Your task to perform on an android device: choose inbox layout in the gmail app Image 0: 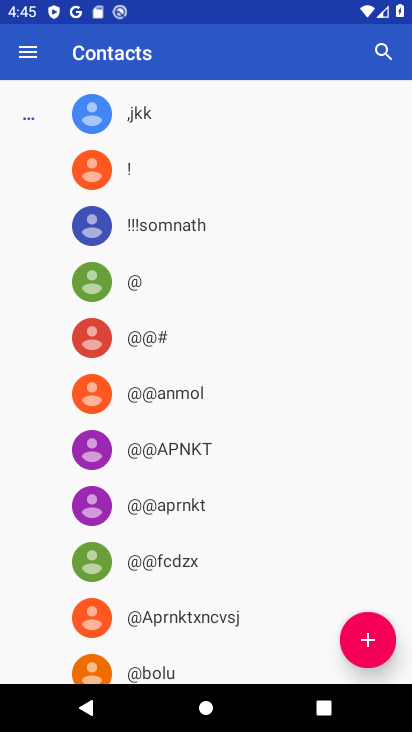
Step 0: press home button
Your task to perform on an android device: choose inbox layout in the gmail app Image 1: 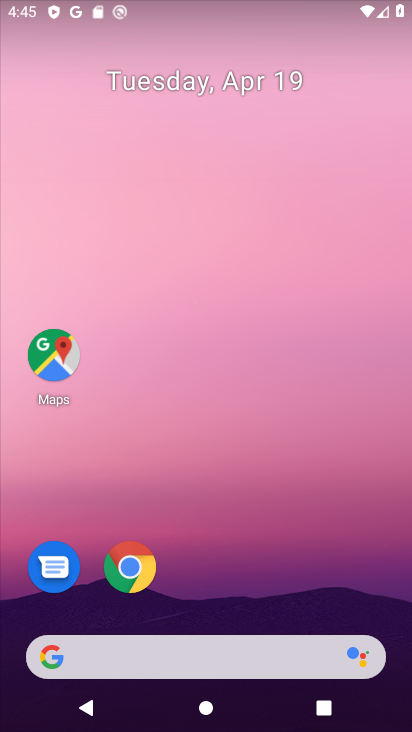
Step 1: drag from (292, 656) to (296, 20)
Your task to perform on an android device: choose inbox layout in the gmail app Image 2: 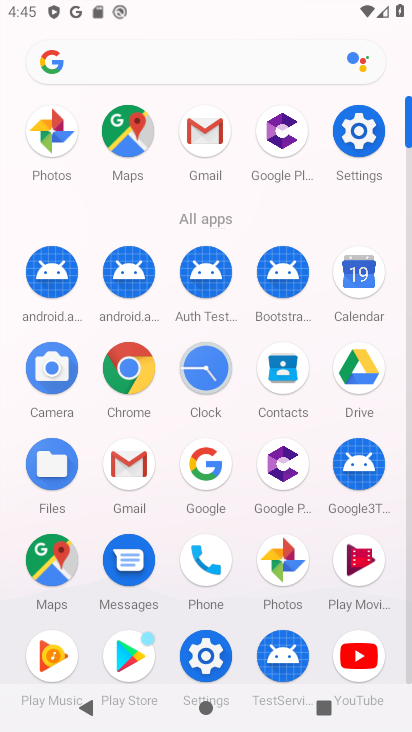
Step 2: click (142, 467)
Your task to perform on an android device: choose inbox layout in the gmail app Image 3: 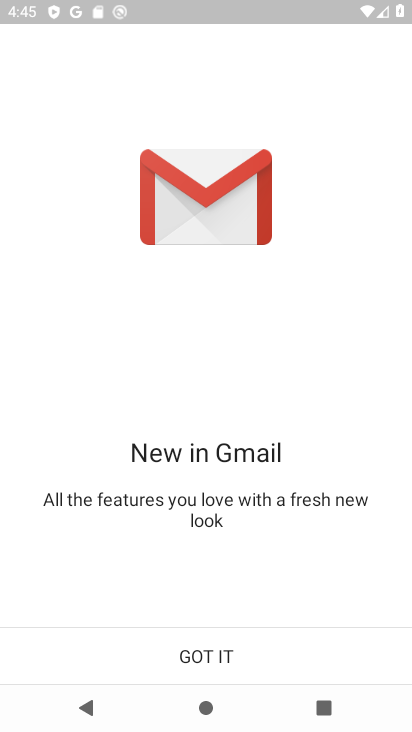
Step 3: click (283, 667)
Your task to perform on an android device: choose inbox layout in the gmail app Image 4: 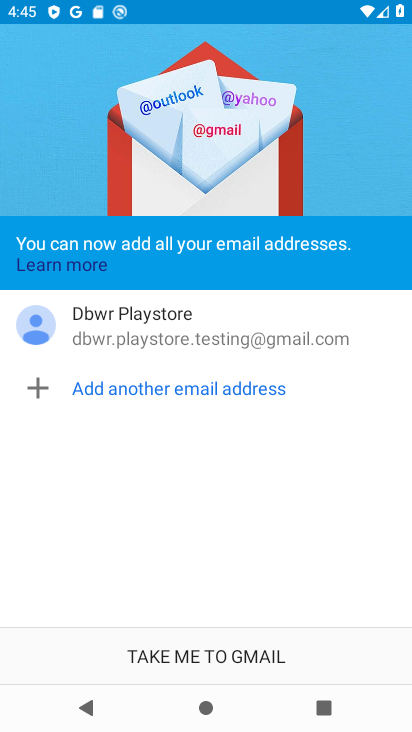
Step 4: click (283, 667)
Your task to perform on an android device: choose inbox layout in the gmail app Image 5: 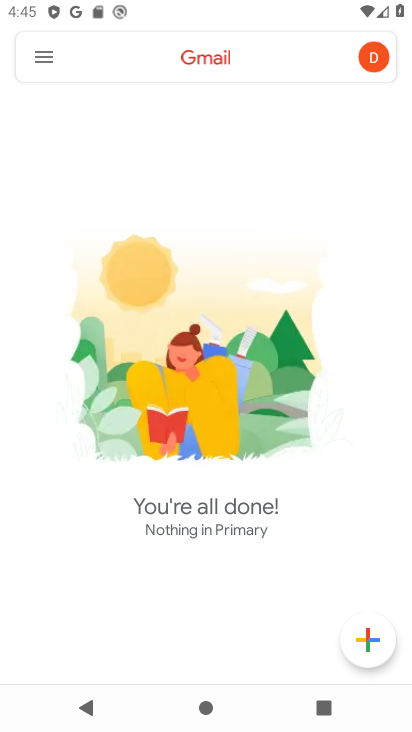
Step 5: click (39, 50)
Your task to perform on an android device: choose inbox layout in the gmail app Image 6: 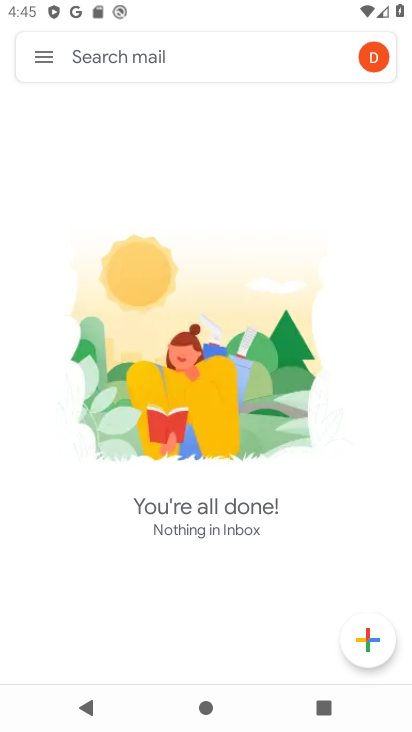
Step 6: click (35, 59)
Your task to perform on an android device: choose inbox layout in the gmail app Image 7: 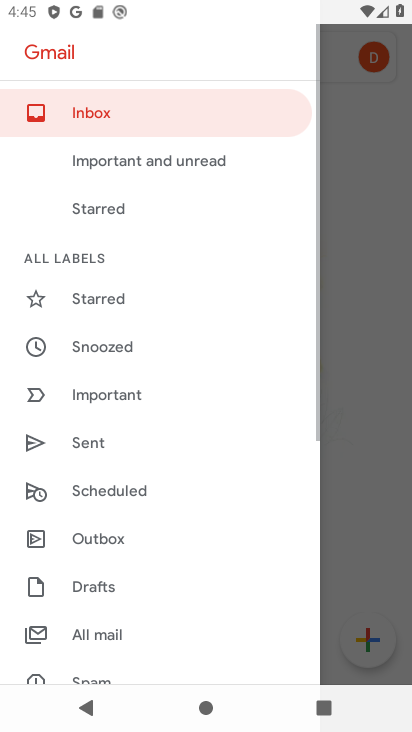
Step 7: drag from (230, 665) to (231, 29)
Your task to perform on an android device: choose inbox layout in the gmail app Image 8: 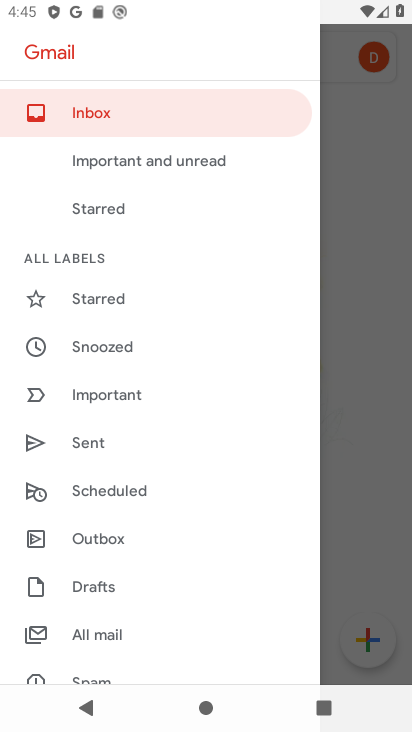
Step 8: drag from (165, 640) to (178, 75)
Your task to perform on an android device: choose inbox layout in the gmail app Image 9: 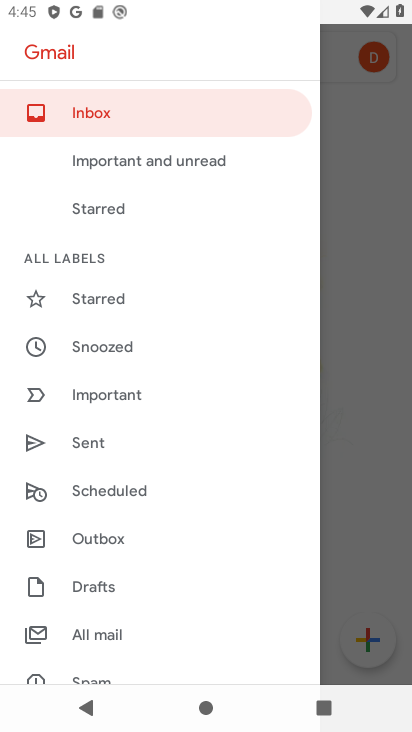
Step 9: drag from (122, 655) to (175, 92)
Your task to perform on an android device: choose inbox layout in the gmail app Image 10: 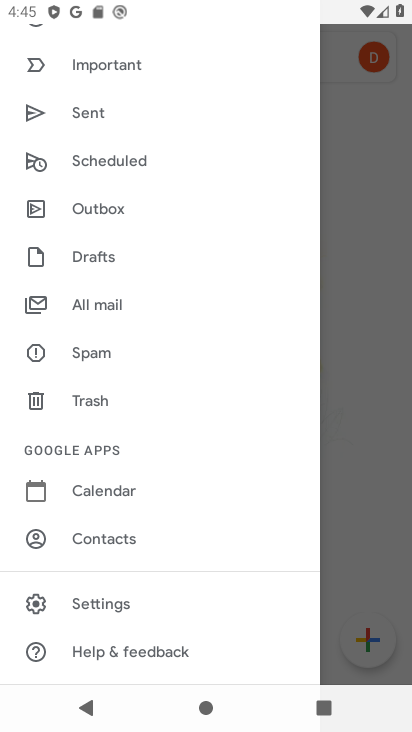
Step 10: click (127, 606)
Your task to perform on an android device: choose inbox layout in the gmail app Image 11: 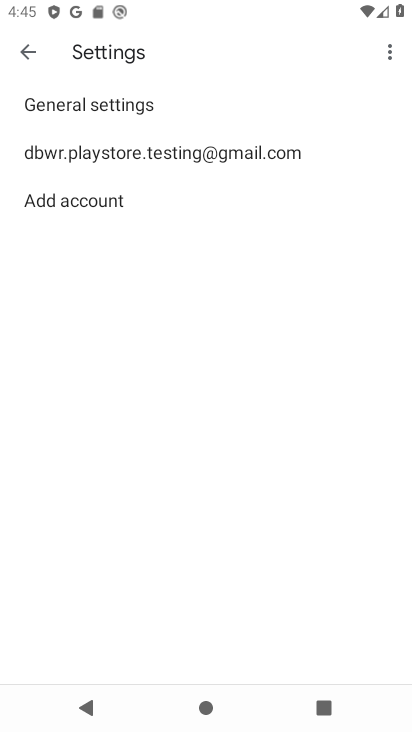
Step 11: click (126, 161)
Your task to perform on an android device: choose inbox layout in the gmail app Image 12: 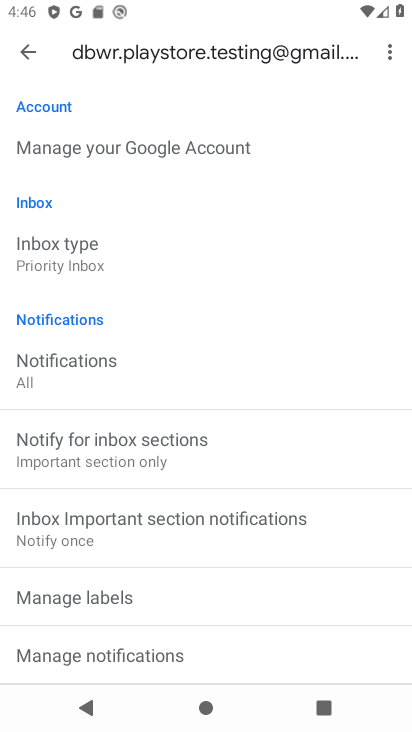
Step 12: click (104, 255)
Your task to perform on an android device: choose inbox layout in the gmail app Image 13: 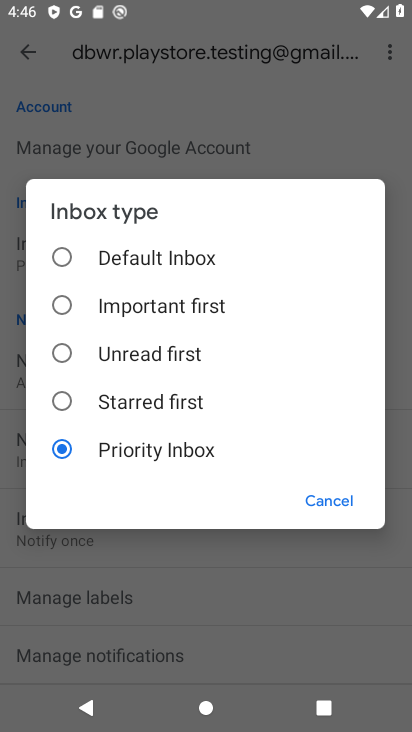
Step 13: click (93, 305)
Your task to perform on an android device: choose inbox layout in the gmail app Image 14: 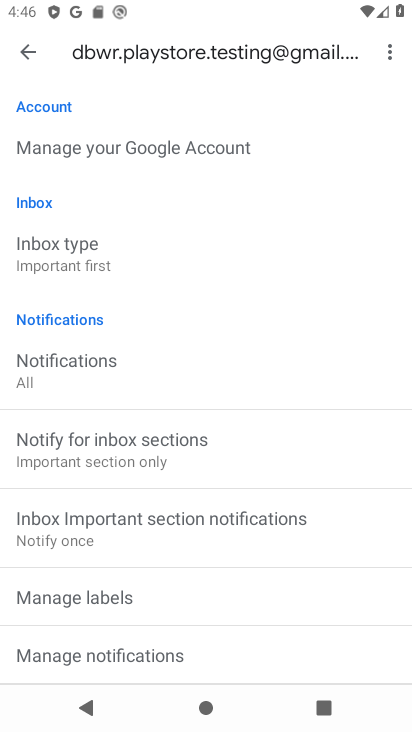
Step 14: task complete